Your task to perform on an android device: open app "Google Sheets" (install if not already installed) Image 0: 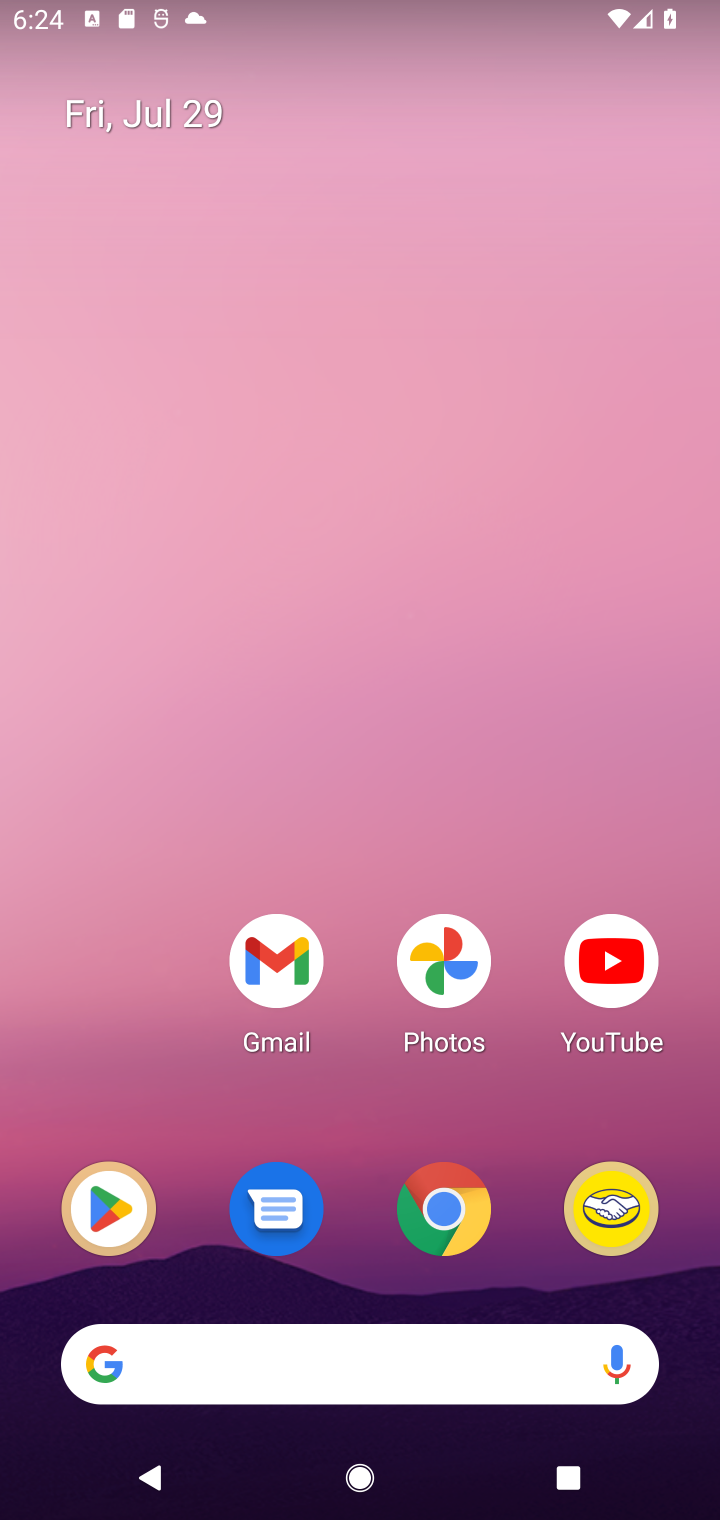
Step 0: click (102, 1221)
Your task to perform on an android device: open app "Google Sheets" (install if not already installed) Image 1: 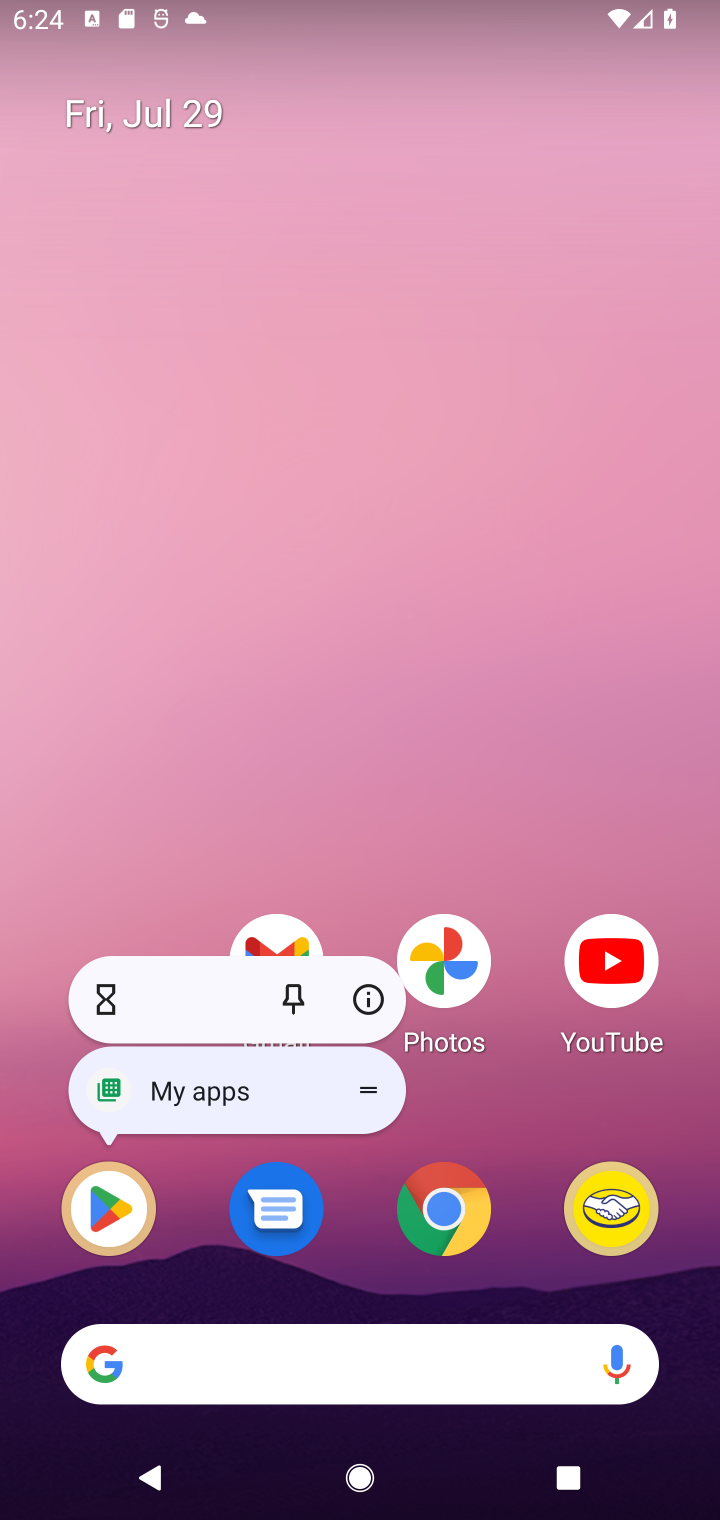
Step 1: click (108, 1208)
Your task to perform on an android device: open app "Google Sheets" (install if not already installed) Image 2: 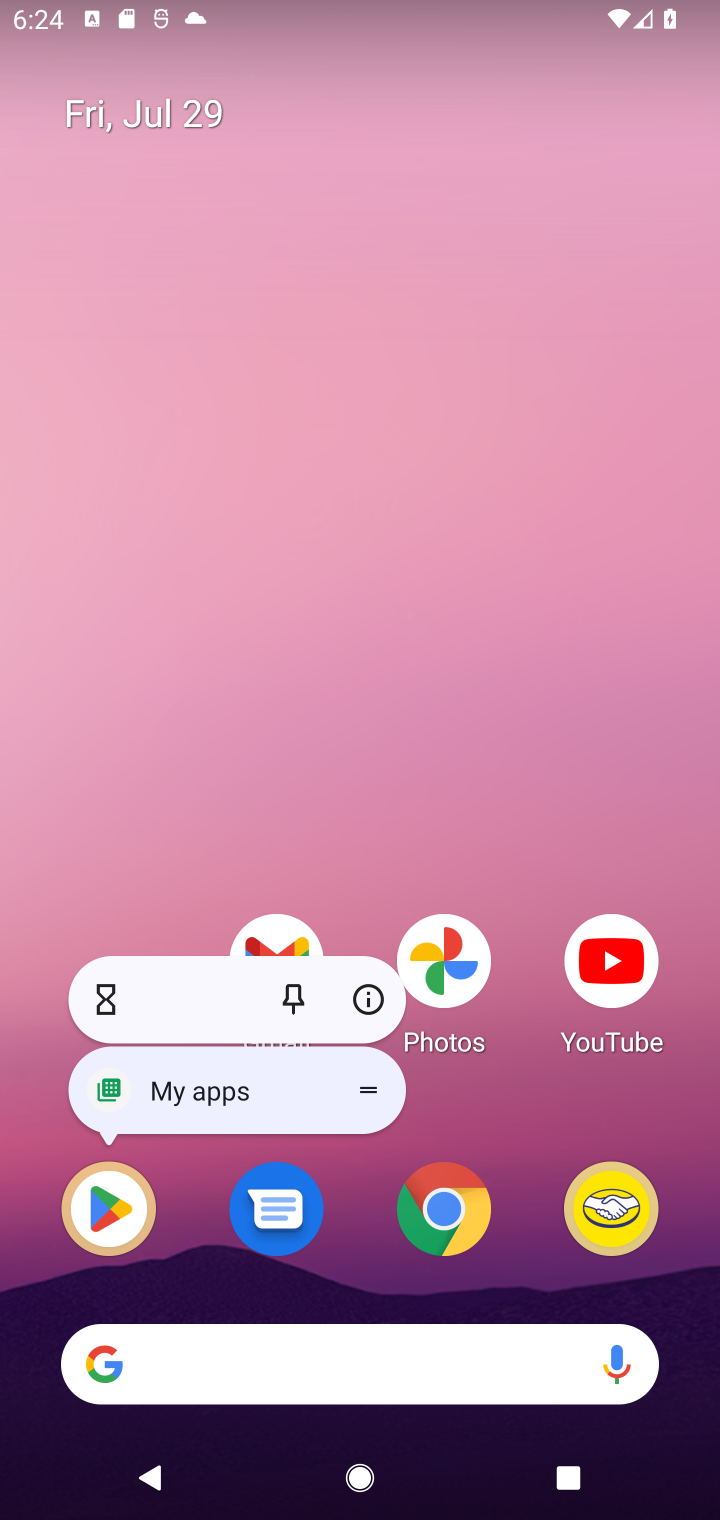
Step 2: click (108, 1208)
Your task to perform on an android device: open app "Google Sheets" (install if not already installed) Image 3: 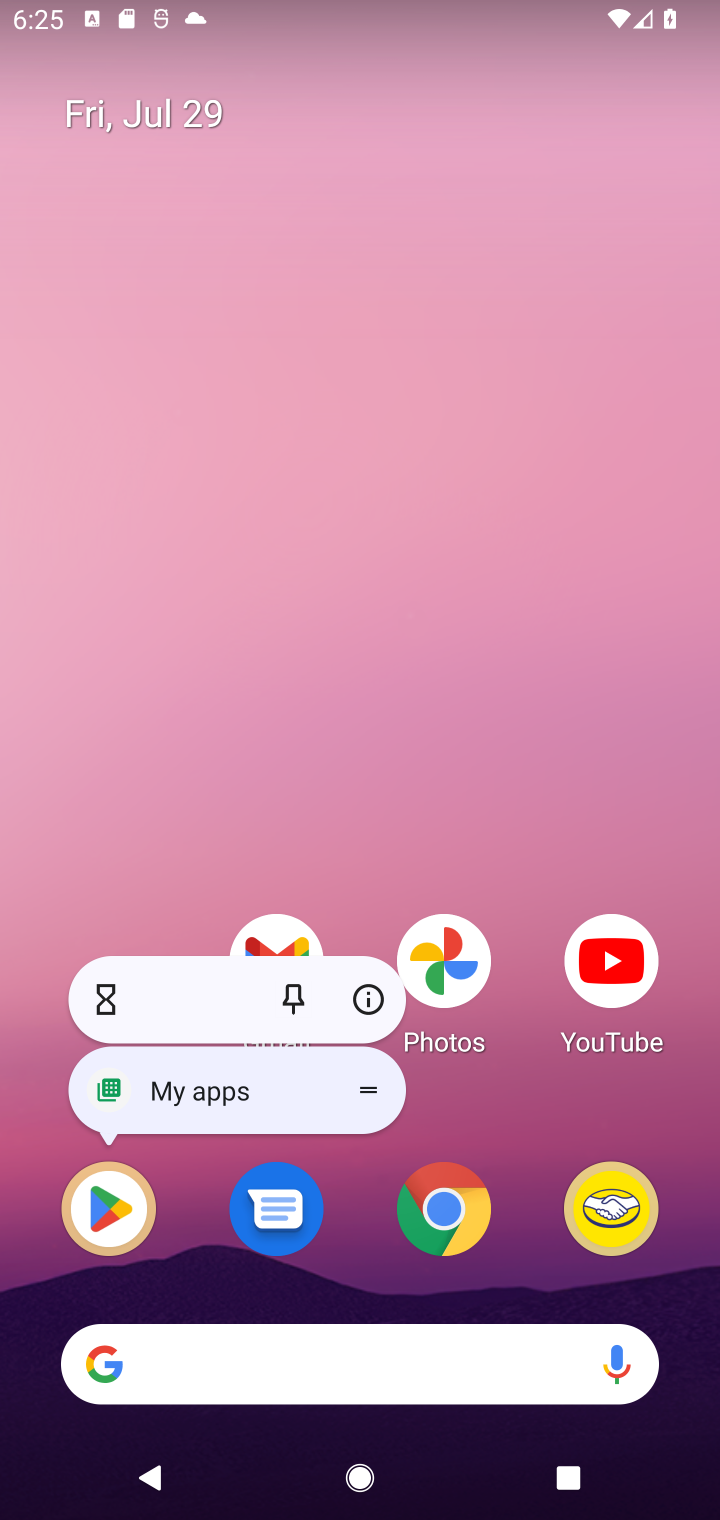
Step 3: click (108, 1208)
Your task to perform on an android device: open app "Google Sheets" (install if not already installed) Image 4: 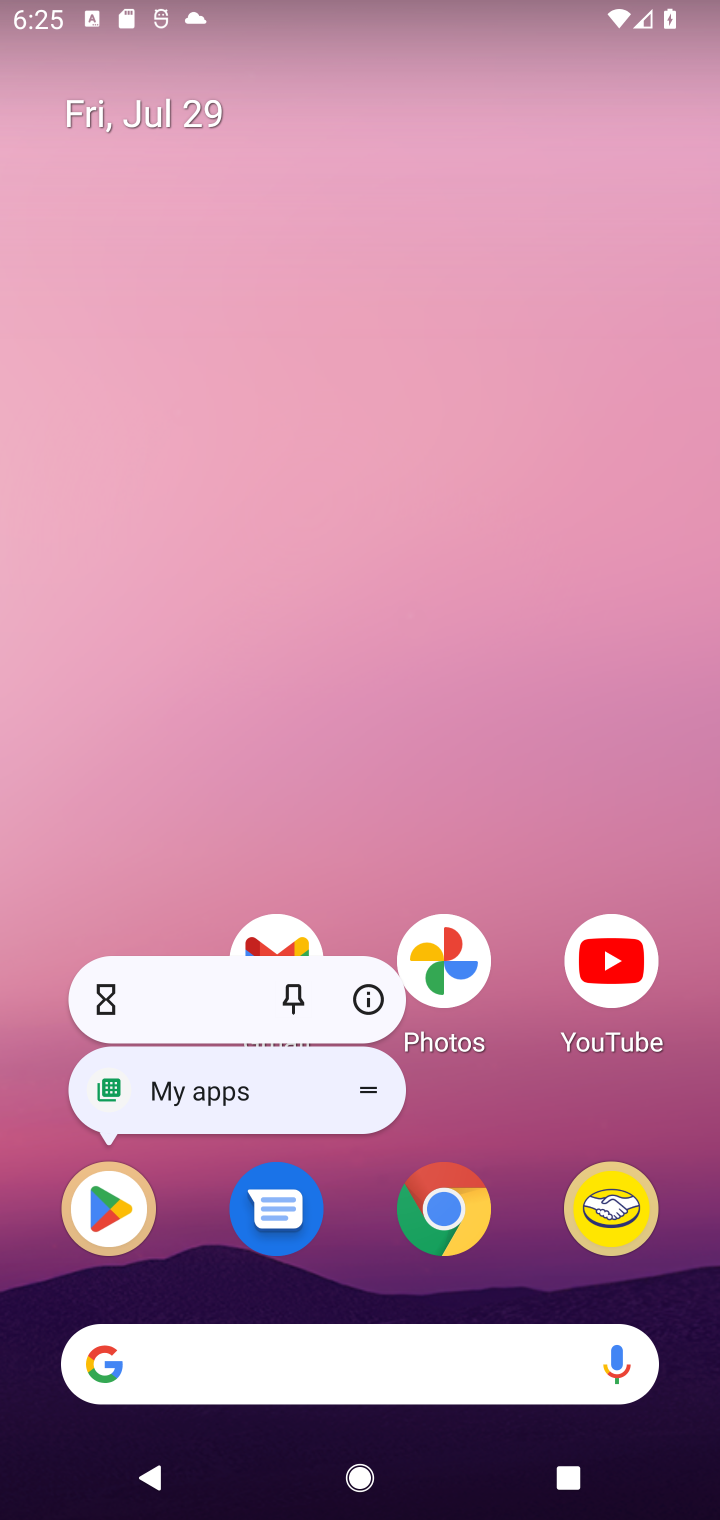
Step 4: click (108, 1208)
Your task to perform on an android device: open app "Google Sheets" (install if not already installed) Image 5: 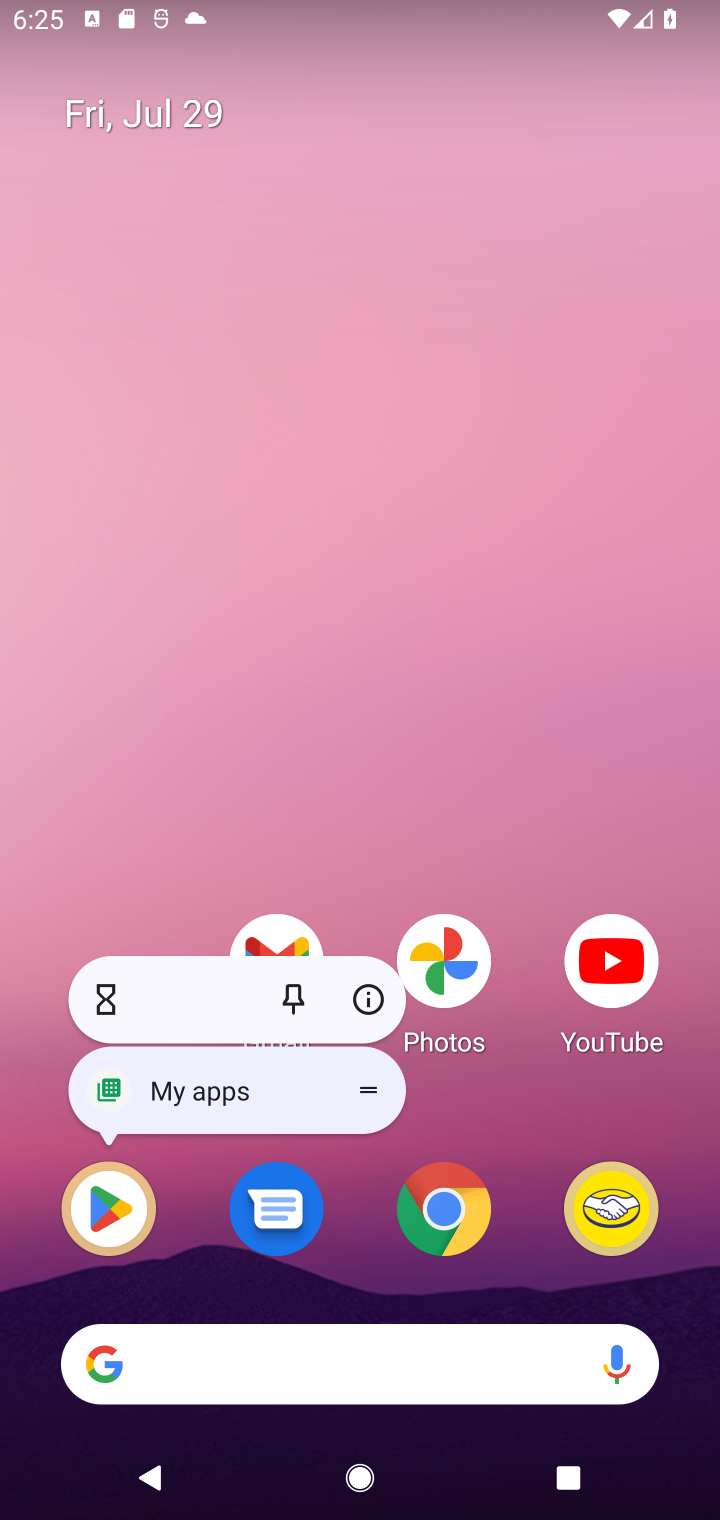
Step 5: click (108, 1208)
Your task to perform on an android device: open app "Google Sheets" (install if not already installed) Image 6: 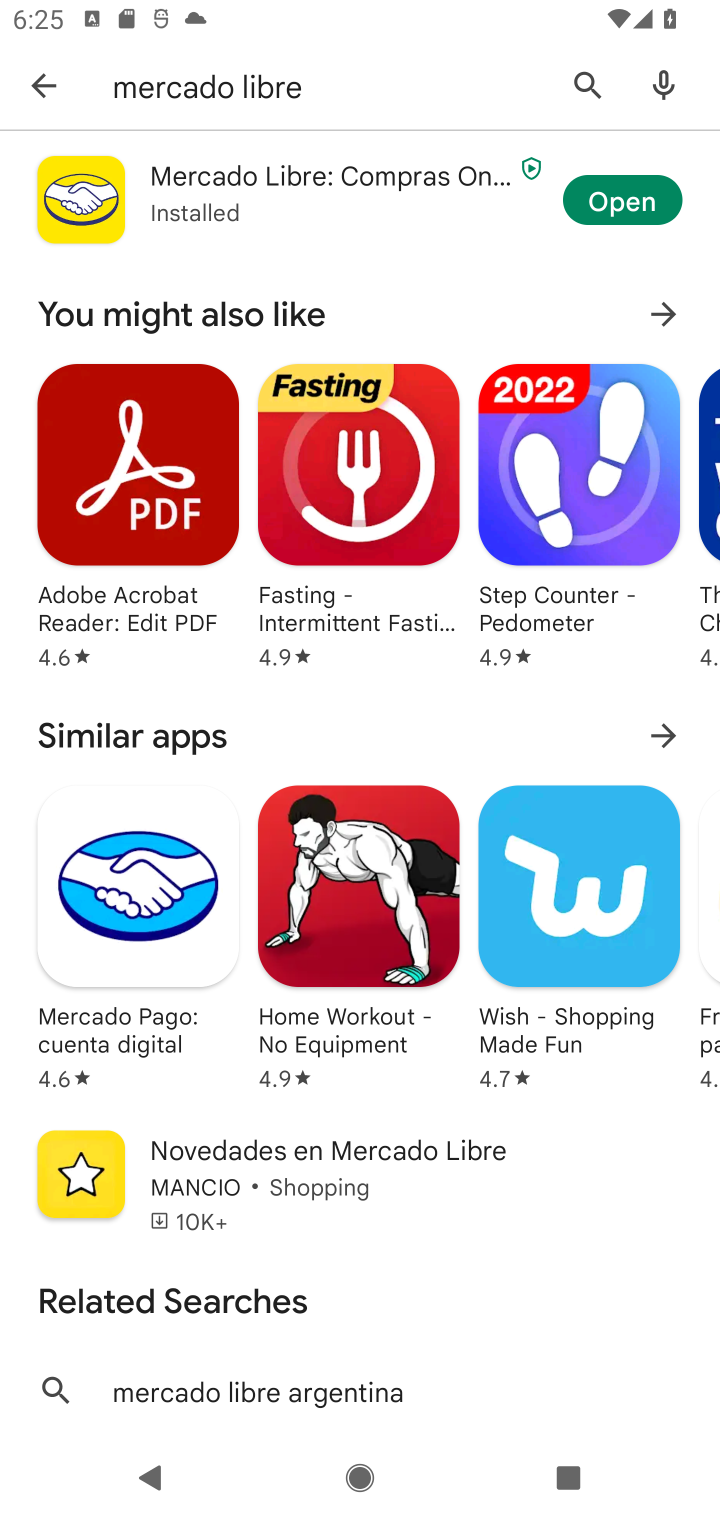
Step 6: click (585, 80)
Your task to perform on an android device: open app "Google Sheets" (install if not already installed) Image 7: 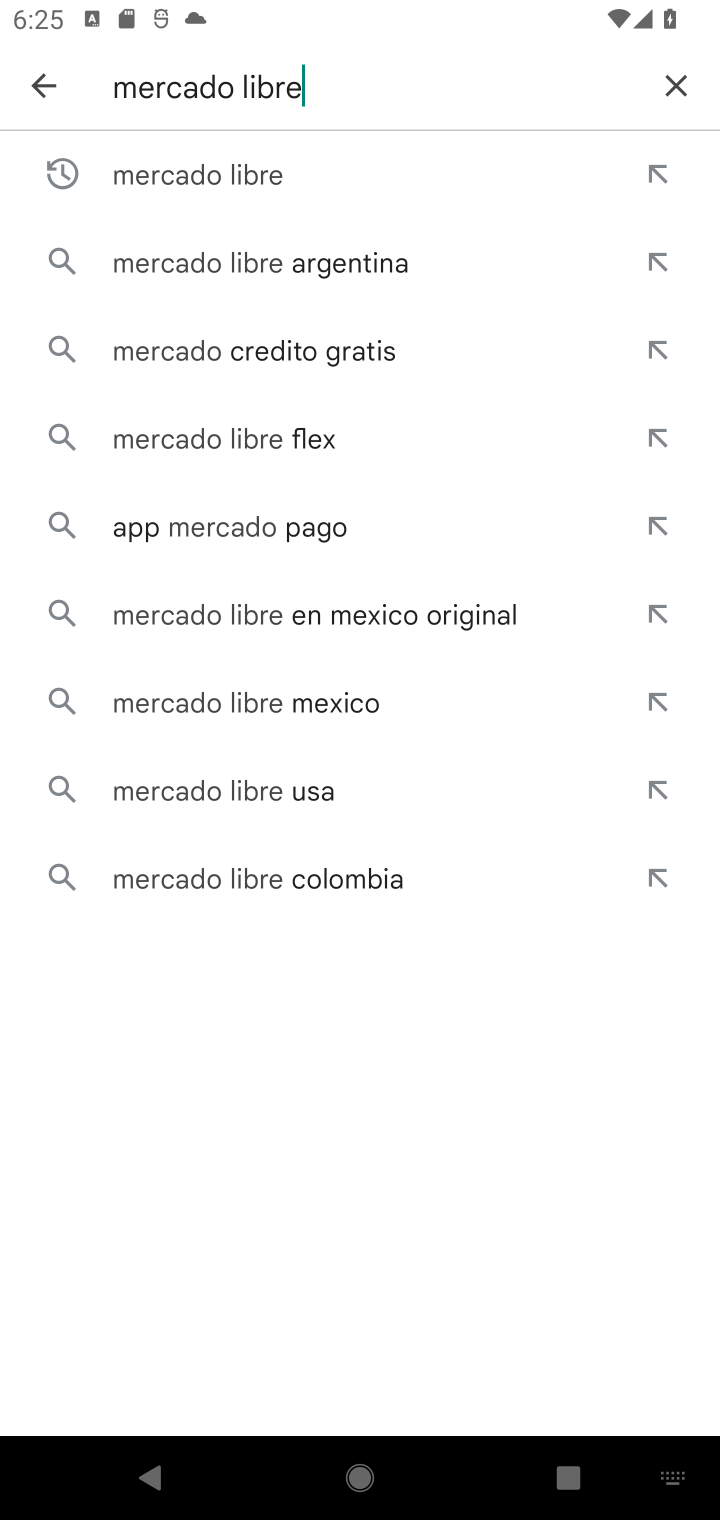
Step 7: click (658, 84)
Your task to perform on an android device: open app "Google Sheets" (install if not already installed) Image 8: 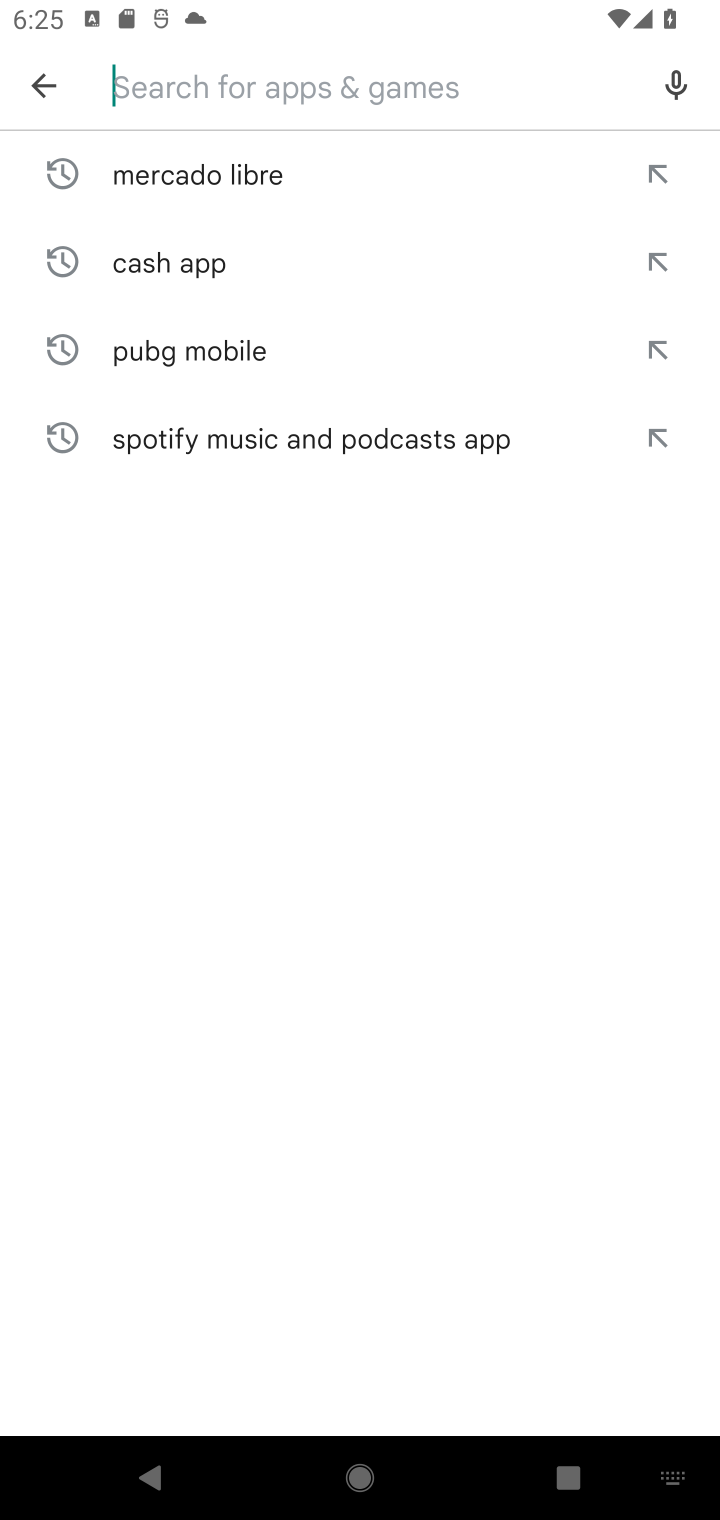
Step 8: click (380, 99)
Your task to perform on an android device: open app "Google Sheets" (install if not already installed) Image 9: 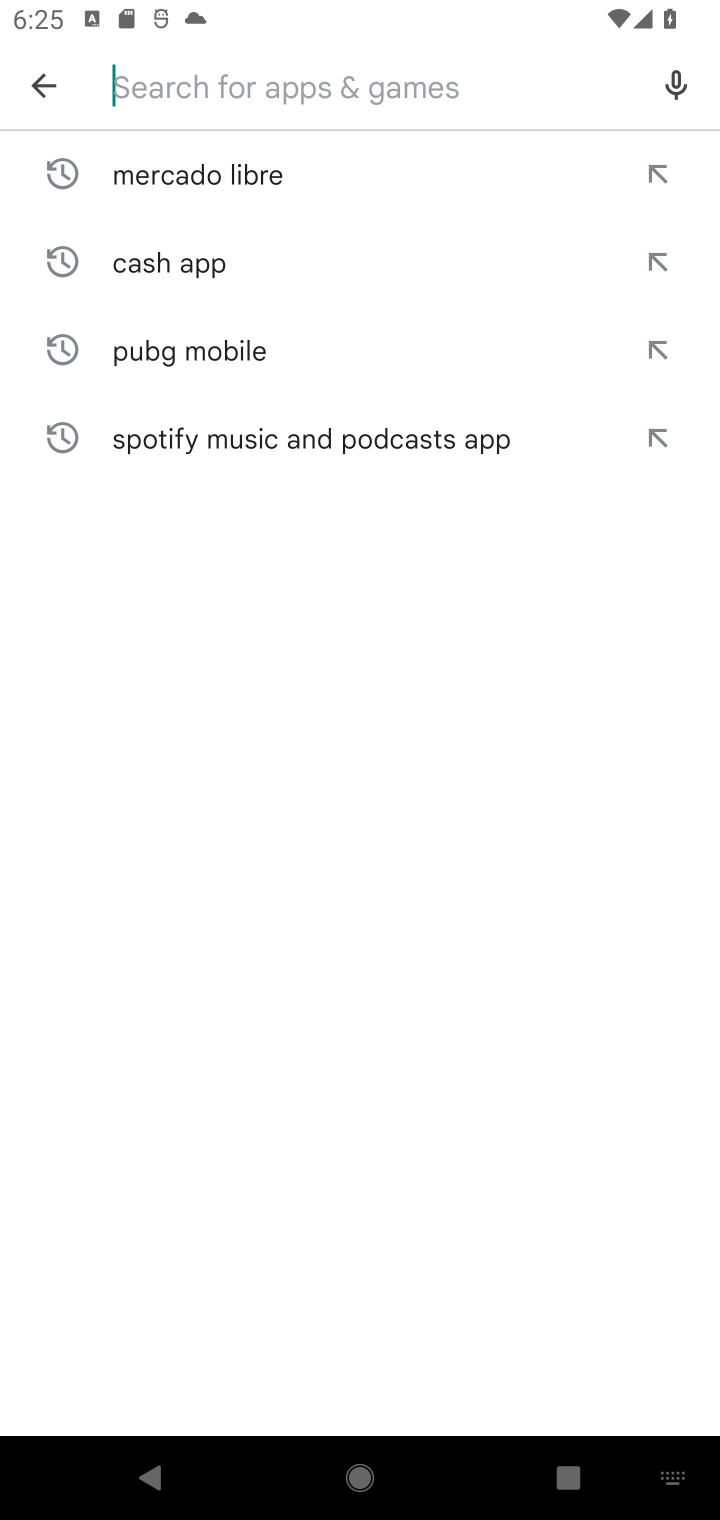
Step 9: type "Google Sheets"
Your task to perform on an android device: open app "Google Sheets" (install if not already installed) Image 10: 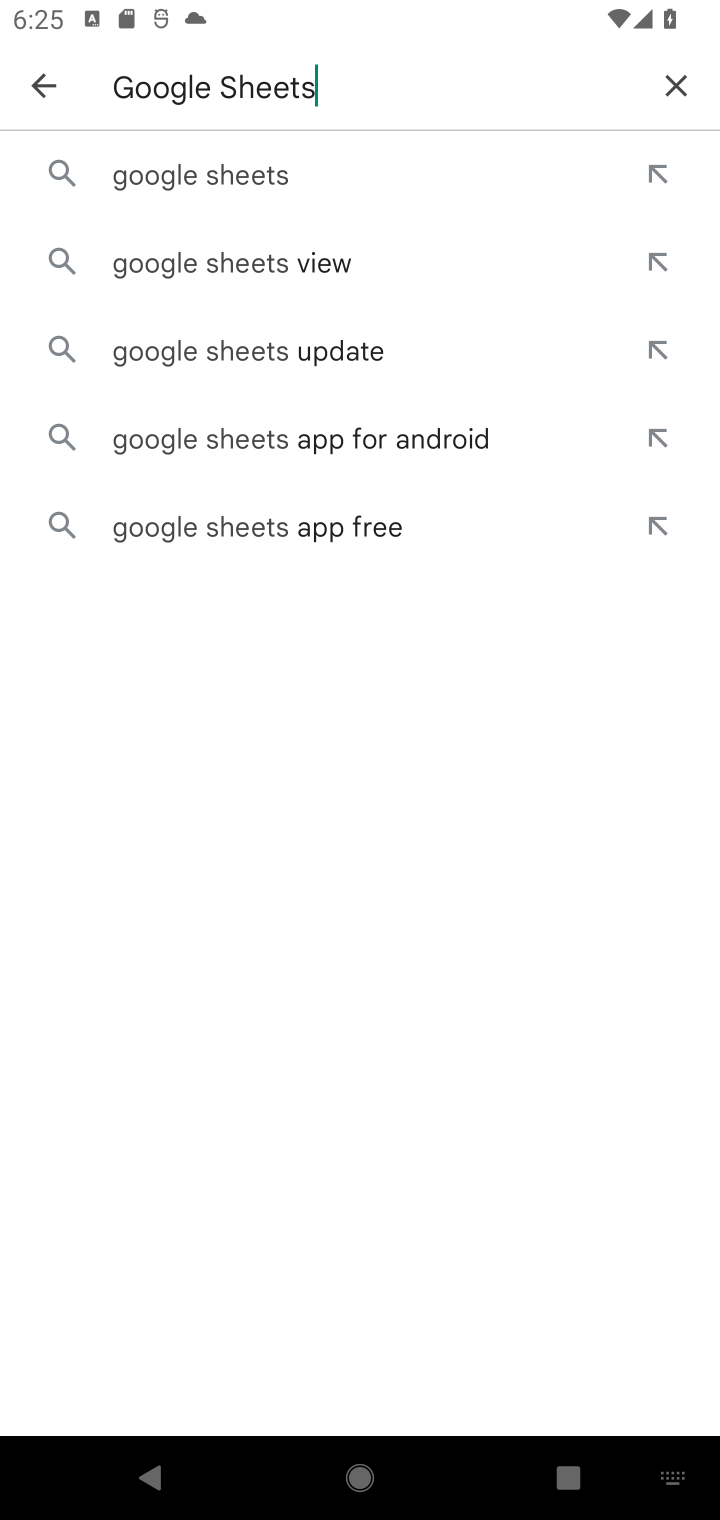
Step 10: click (259, 166)
Your task to perform on an android device: open app "Google Sheets" (install if not already installed) Image 11: 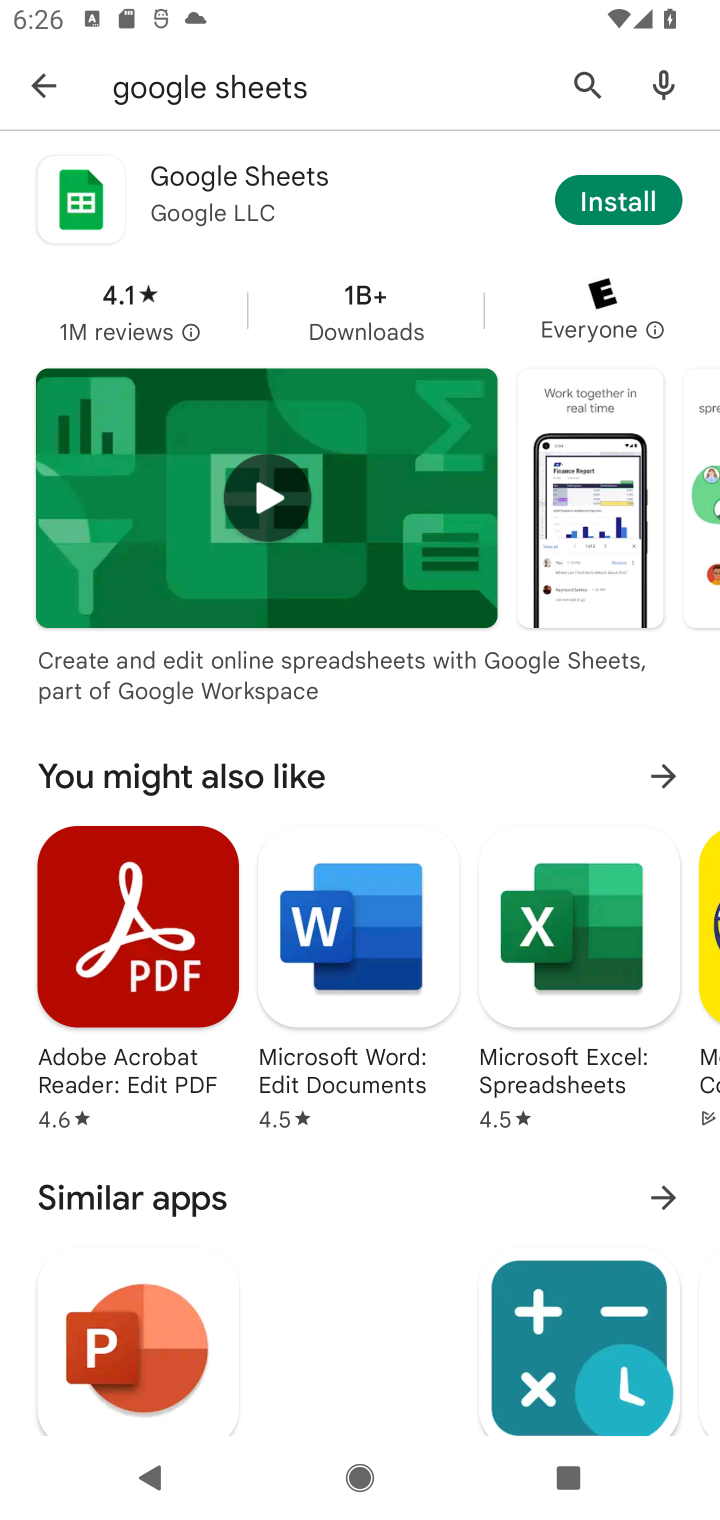
Step 11: click (629, 206)
Your task to perform on an android device: open app "Google Sheets" (install if not already installed) Image 12: 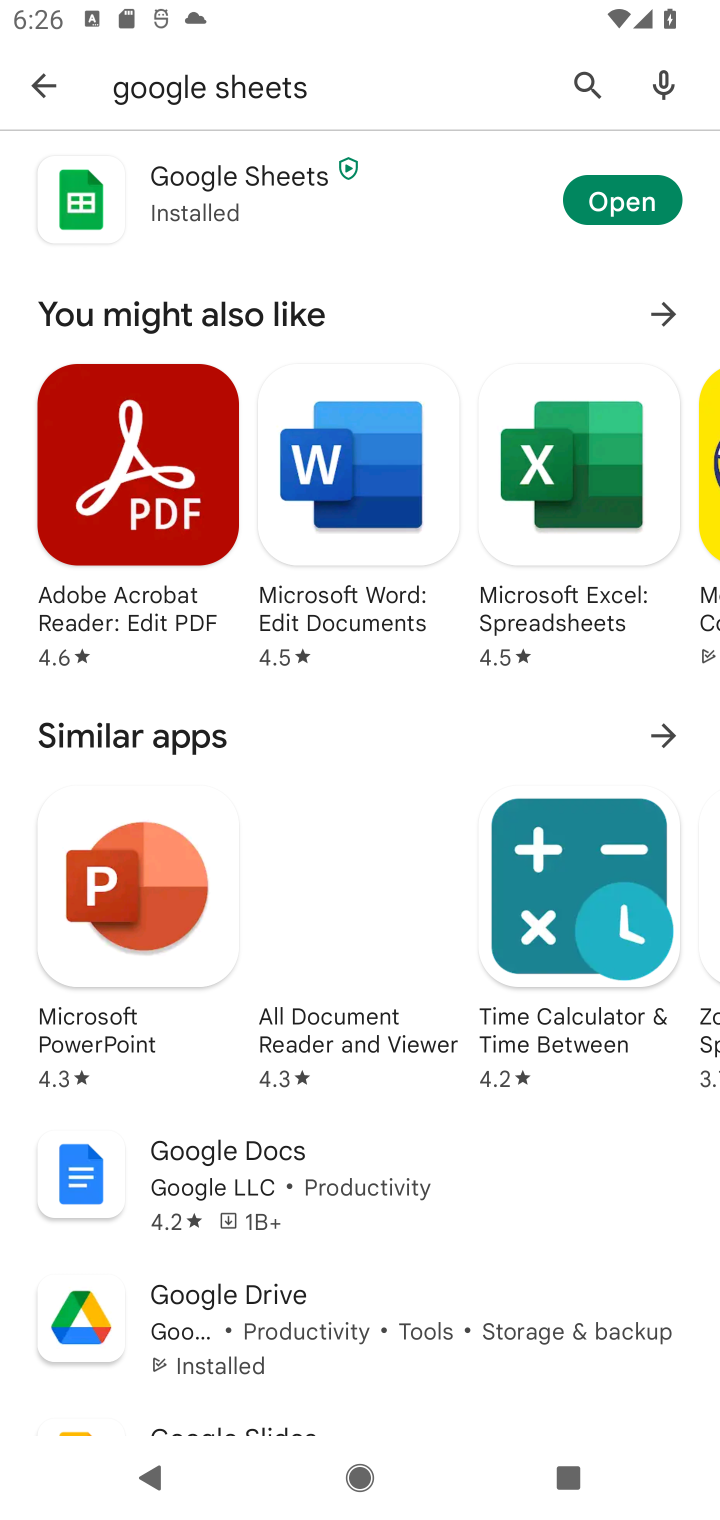
Step 12: click (686, 194)
Your task to perform on an android device: open app "Google Sheets" (install if not already installed) Image 13: 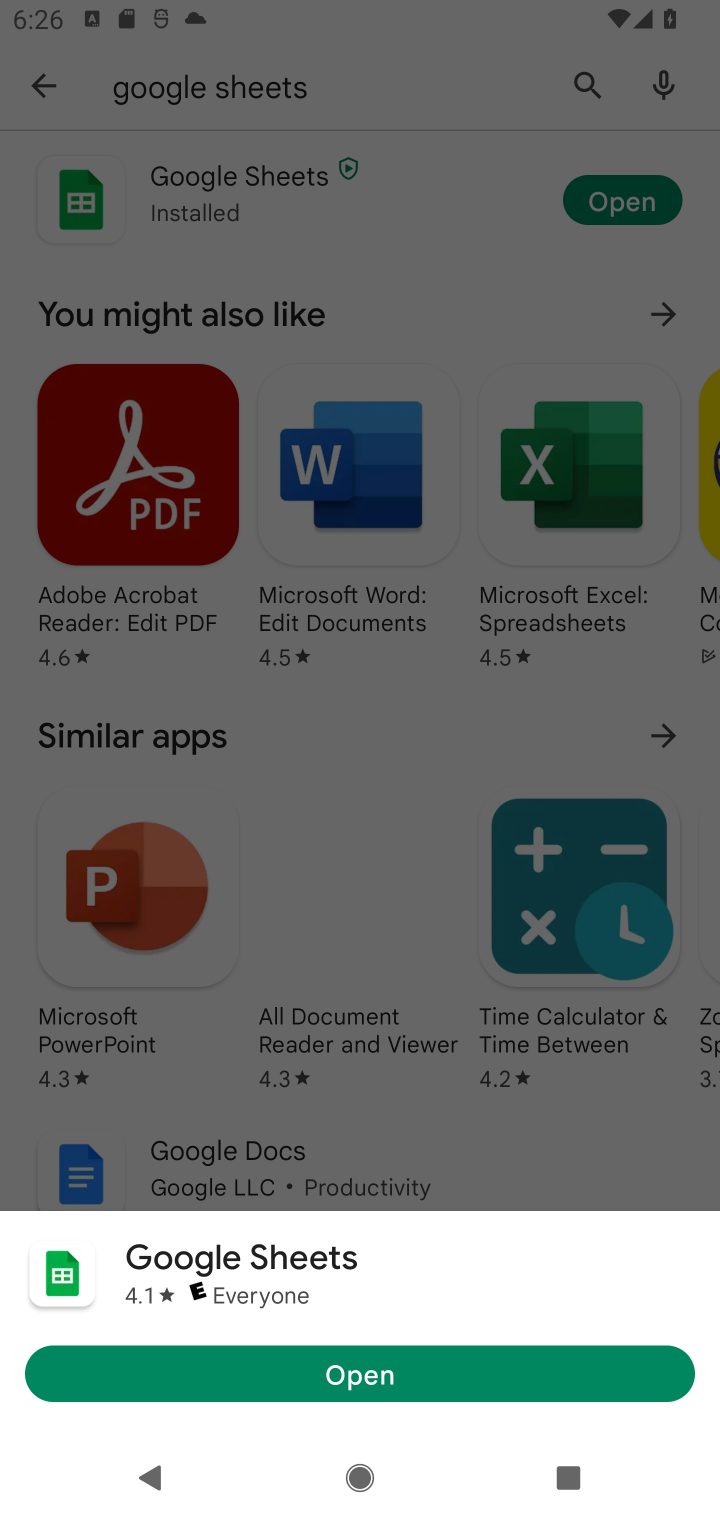
Step 13: click (360, 1393)
Your task to perform on an android device: open app "Google Sheets" (install if not already installed) Image 14: 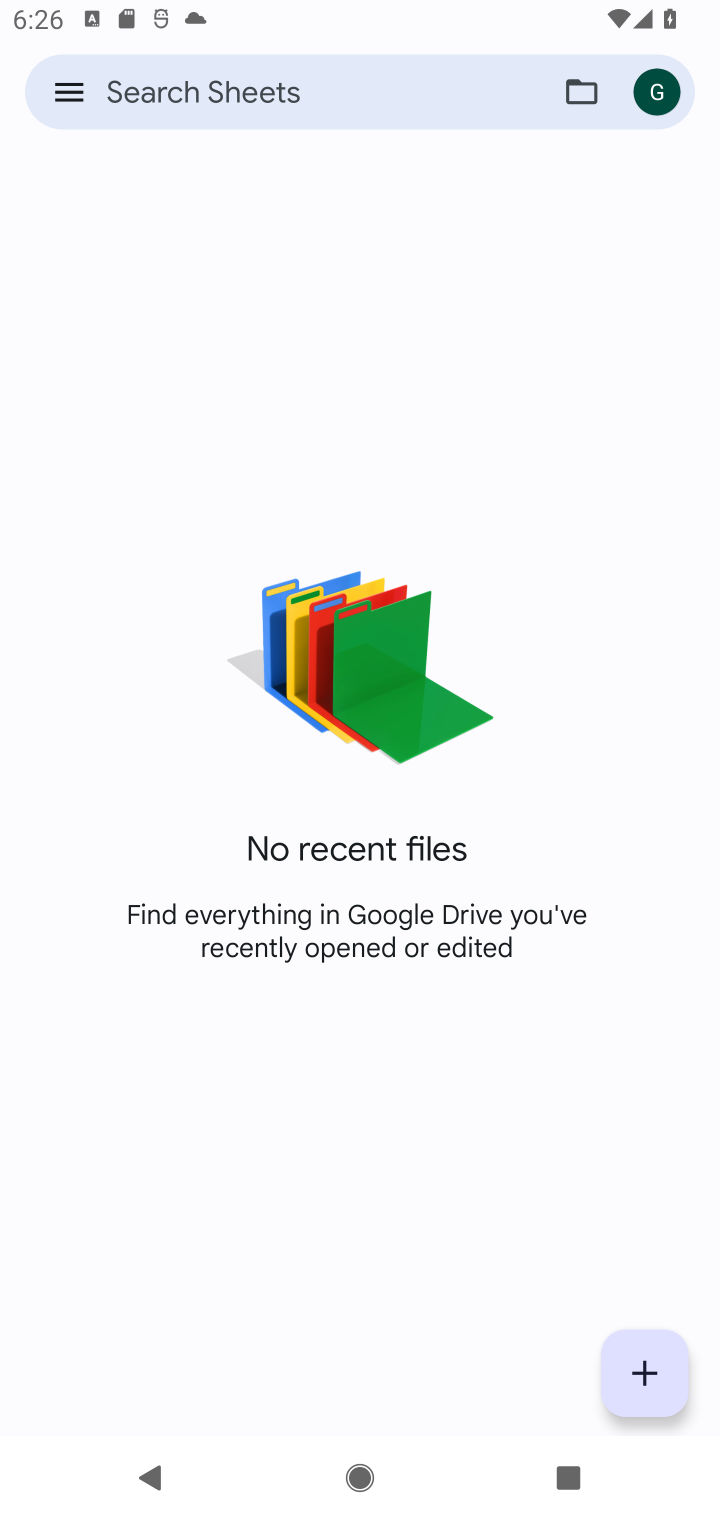
Step 14: task complete